Your task to perform on an android device: toggle translation in the chrome app Image 0: 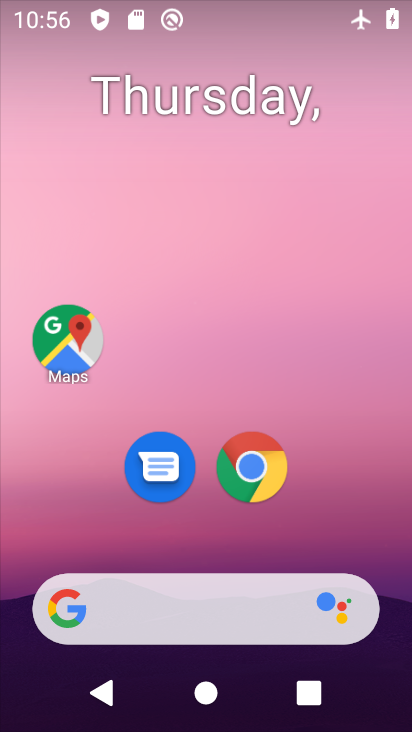
Step 0: click (253, 473)
Your task to perform on an android device: toggle translation in the chrome app Image 1: 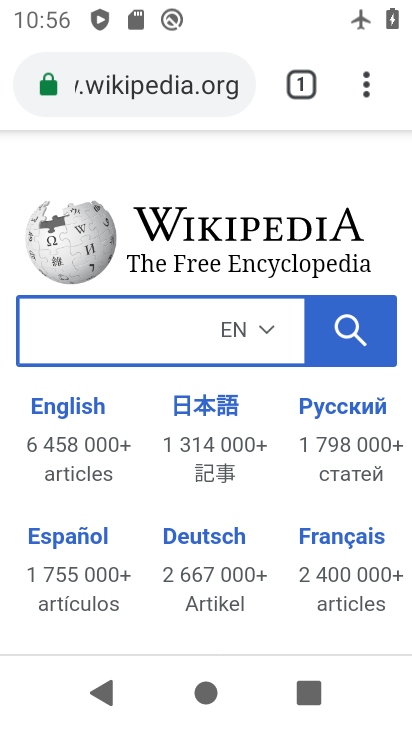
Step 1: click (363, 86)
Your task to perform on an android device: toggle translation in the chrome app Image 2: 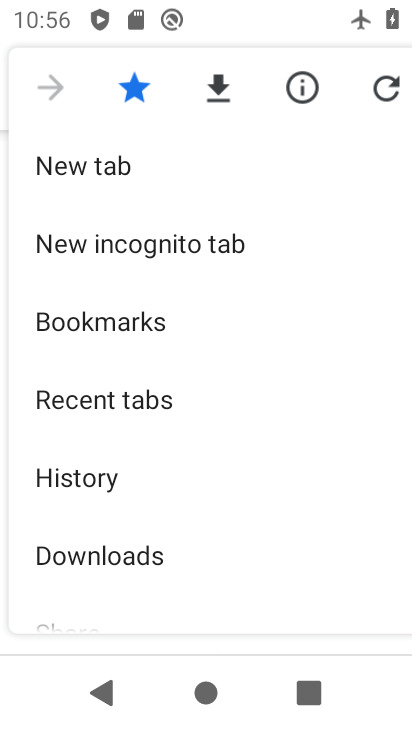
Step 2: drag from (219, 537) to (196, 102)
Your task to perform on an android device: toggle translation in the chrome app Image 3: 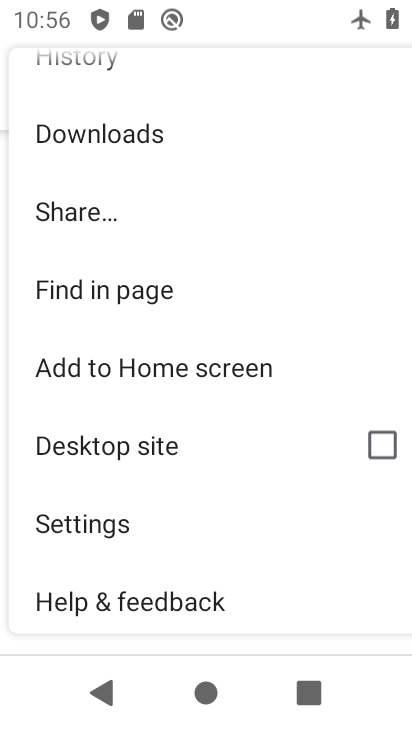
Step 3: drag from (190, 492) to (190, 140)
Your task to perform on an android device: toggle translation in the chrome app Image 4: 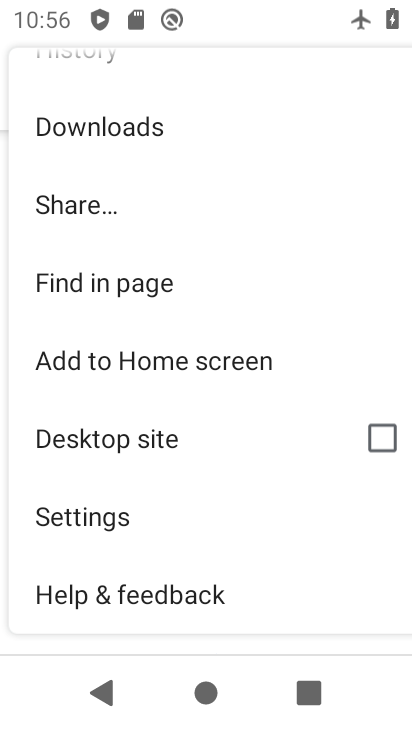
Step 4: click (97, 518)
Your task to perform on an android device: toggle translation in the chrome app Image 5: 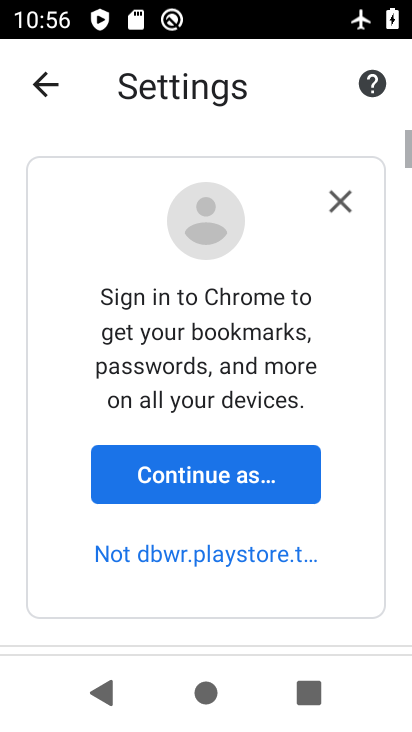
Step 5: drag from (221, 574) to (218, 56)
Your task to perform on an android device: toggle translation in the chrome app Image 6: 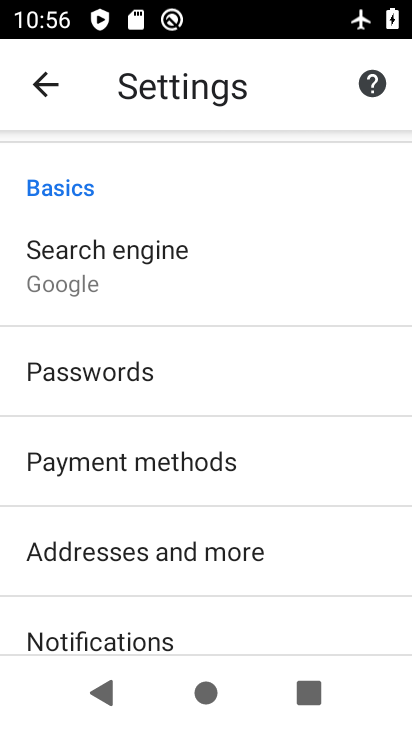
Step 6: drag from (203, 513) to (176, 123)
Your task to perform on an android device: toggle translation in the chrome app Image 7: 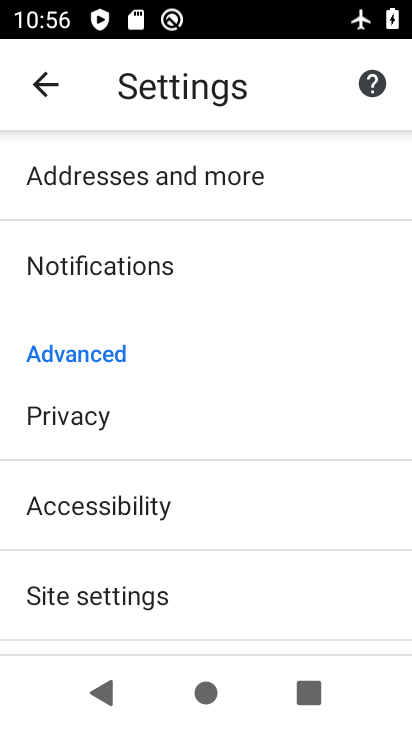
Step 7: drag from (176, 495) to (167, 147)
Your task to perform on an android device: toggle translation in the chrome app Image 8: 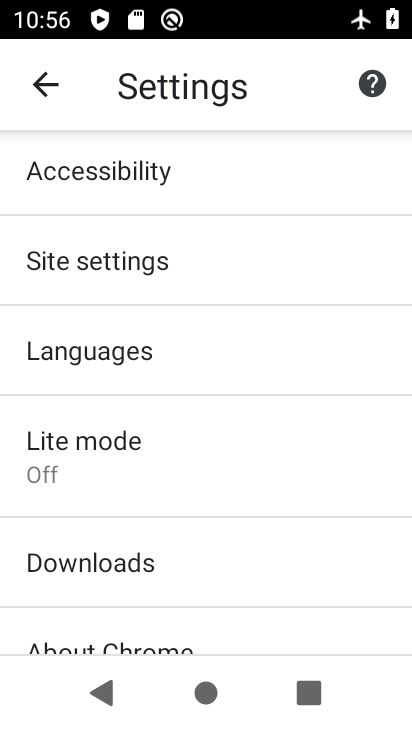
Step 8: click (103, 359)
Your task to perform on an android device: toggle translation in the chrome app Image 9: 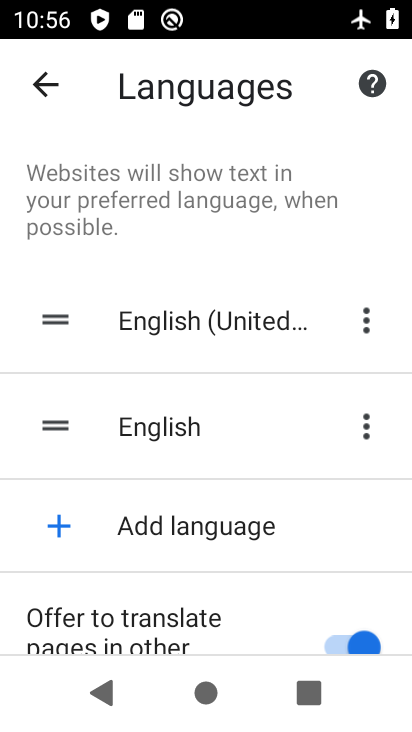
Step 9: drag from (132, 472) to (131, 189)
Your task to perform on an android device: toggle translation in the chrome app Image 10: 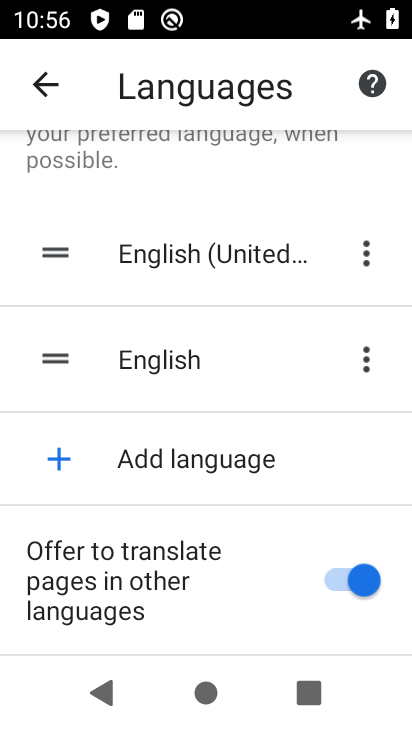
Step 10: click (353, 585)
Your task to perform on an android device: toggle translation in the chrome app Image 11: 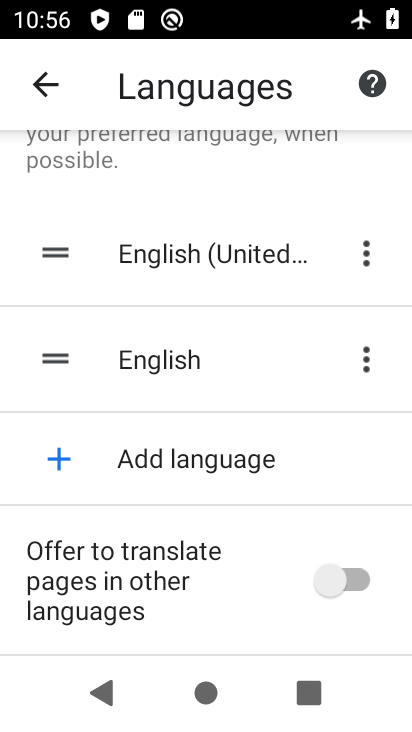
Step 11: task complete